Your task to perform on an android device: choose inbox layout in the gmail app Image 0: 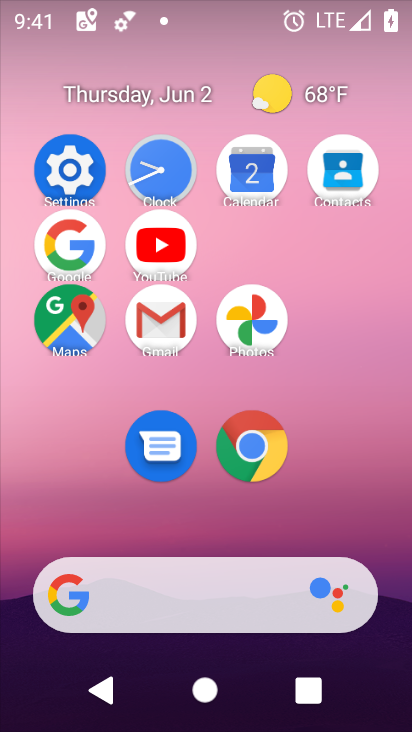
Step 0: click (176, 328)
Your task to perform on an android device: choose inbox layout in the gmail app Image 1: 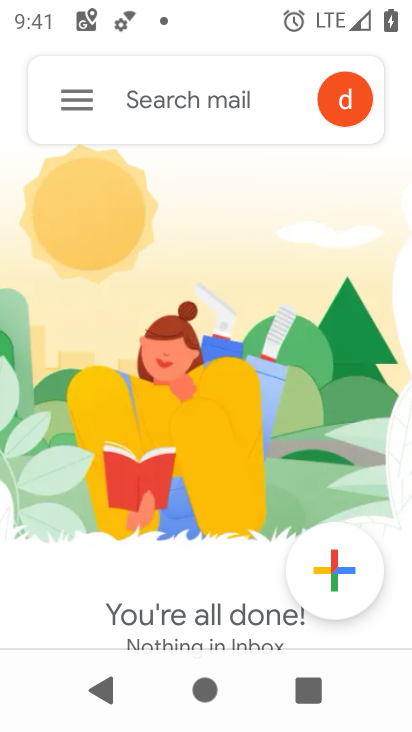
Step 1: click (93, 99)
Your task to perform on an android device: choose inbox layout in the gmail app Image 2: 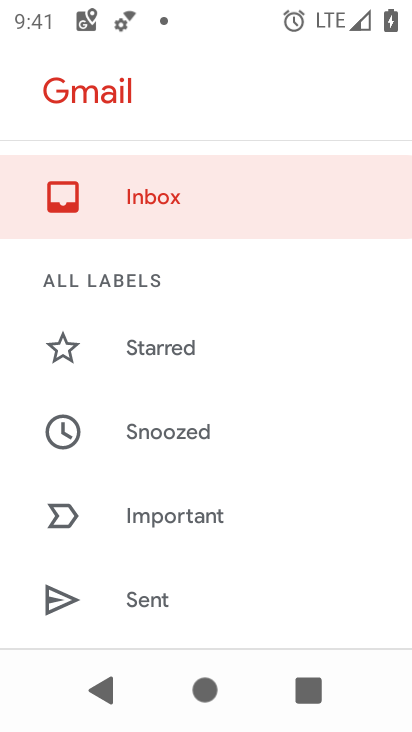
Step 2: drag from (269, 574) to (301, 234)
Your task to perform on an android device: choose inbox layout in the gmail app Image 3: 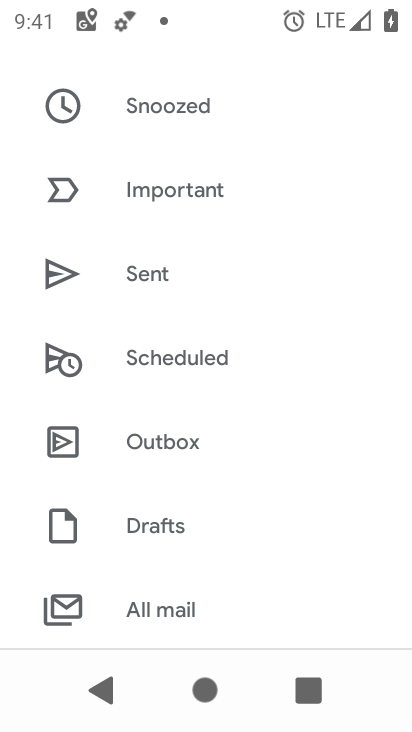
Step 3: drag from (228, 478) to (207, 128)
Your task to perform on an android device: choose inbox layout in the gmail app Image 4: 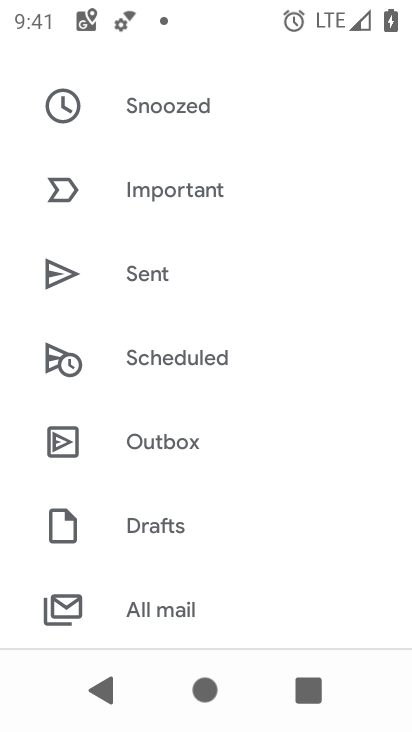
Step 4: drag from (235, 489) to (254, 84)
Your task to perform on an android device: choose inbox layout in the gmail app Image 5: 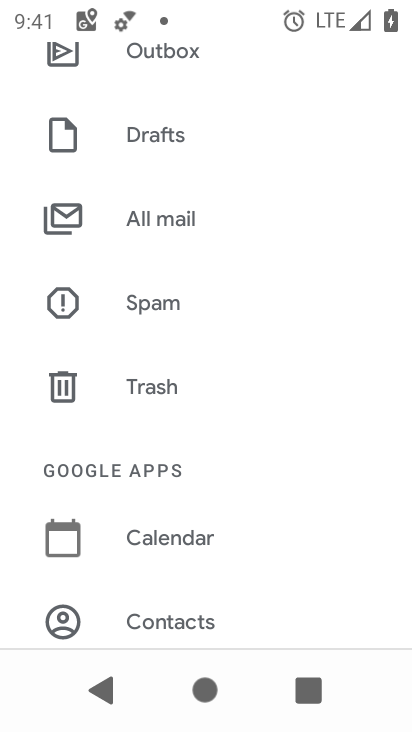
Step 5: drag from (204, 564) to (215, 227)
Your task to perform on an android device: choose inbox layout in the gmail app Image 6: 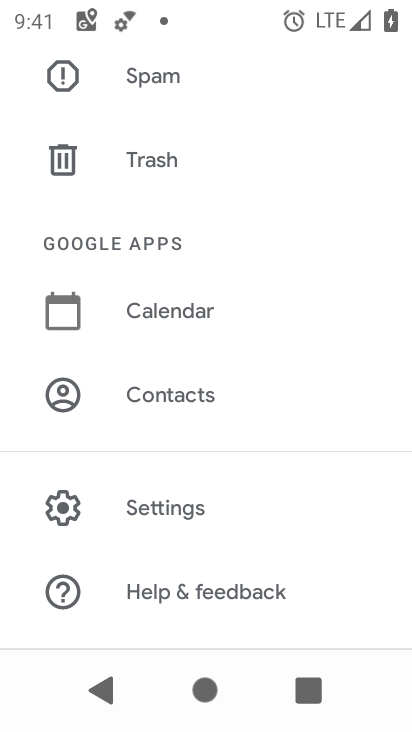
Step 6: click (228, 500)
Your task to perform on an android device: choose inbox layout in the gmail app Image 7: 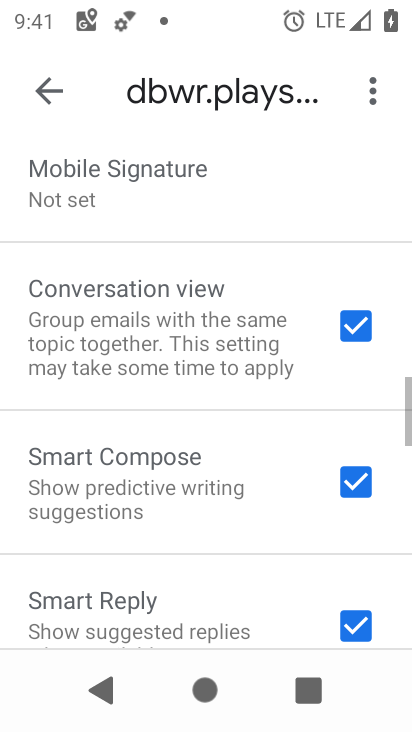
Step 7: drag from (230, 536) to (239, 122)
Your task to perform on an android device: choose inbox layout in the gmail app Image 8: 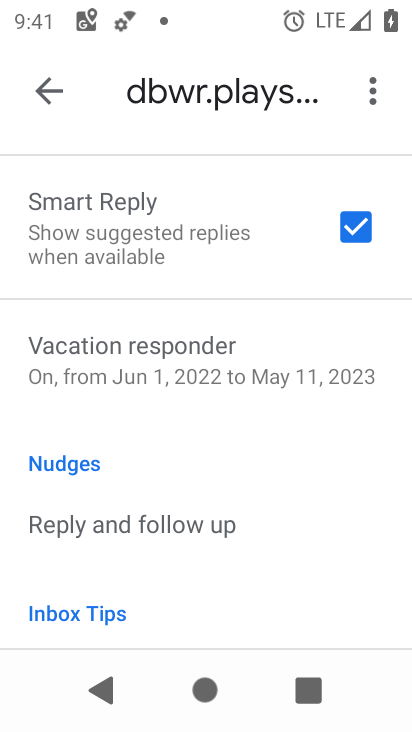
Step 8: drag from (264, 446) to (297, 156)
Your task to perform on an android device: choose inbox layout in the gmail app Image 9: 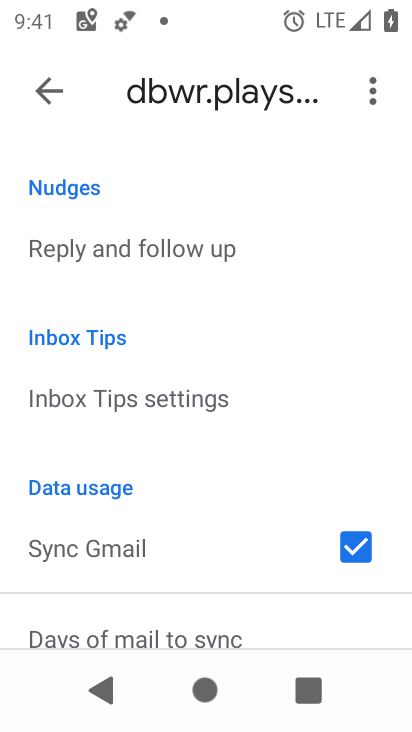
Step 9: drag from (197, 199) to (222, 614)
Your task to perform on an android device: choose inbox layout in the gmail app Image 10: 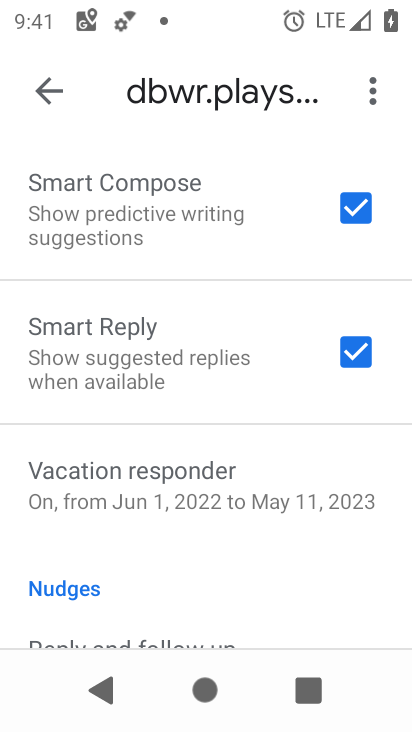
Step 10: drag from (199, 218) to (210, 620)
Your task to perform on an android device: choose inbox layout in the gmail app Image 11: 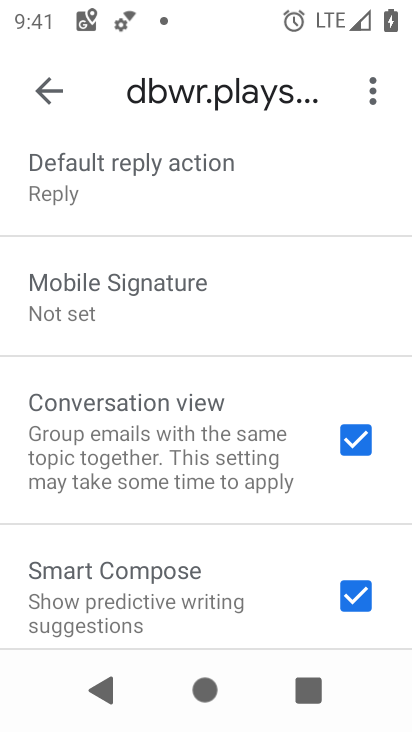
Step 11: drag from (240, 244) to (265, 717)
Your task to perform on an android device: choose inbox layout in the gmail app Image 12: 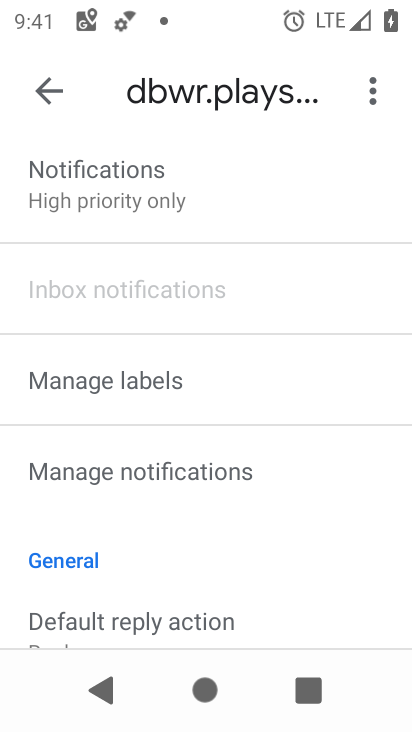
Step 12: drag from (265, 171) to (270, 572)
Your task to perform on an android device: choose inbox layout in the gmail app Image 13: 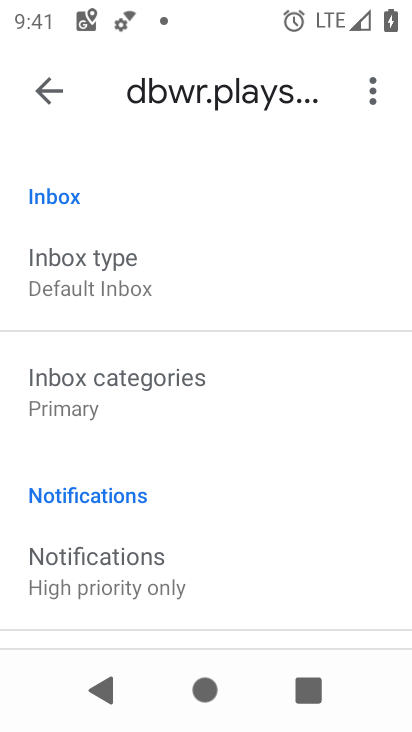
Step 13: click (150, 262)
Your task to perform on an android device: choose inbox layout in the gmail app Image 14: 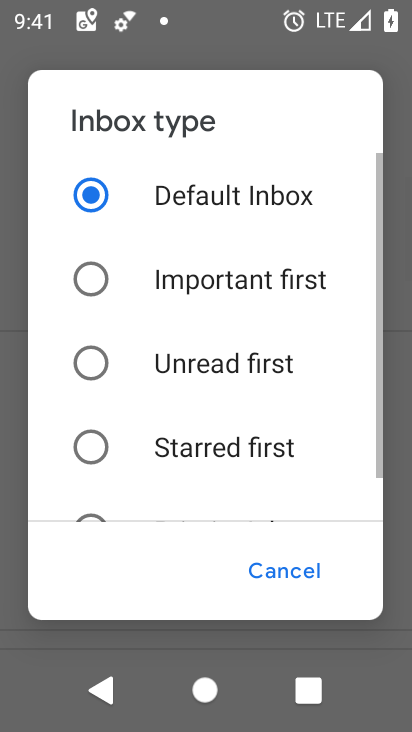
Step 14: task complete